Your task to perform on an android device: open chrome privacy settings Image 0: 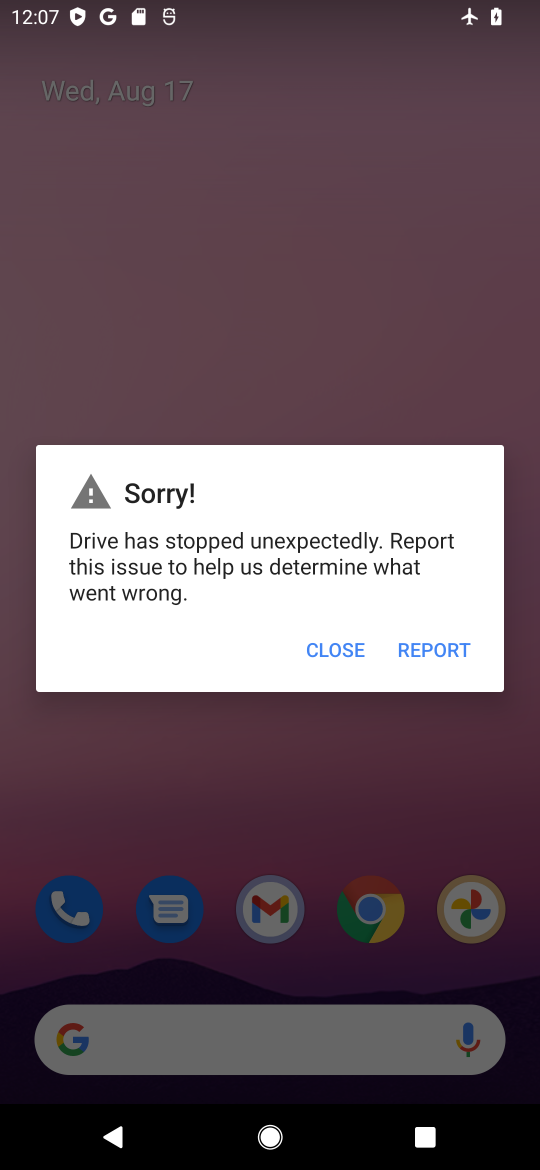
Step 0: press home button
Your task to perform on an android device: open chrome privacy settings Image 1: 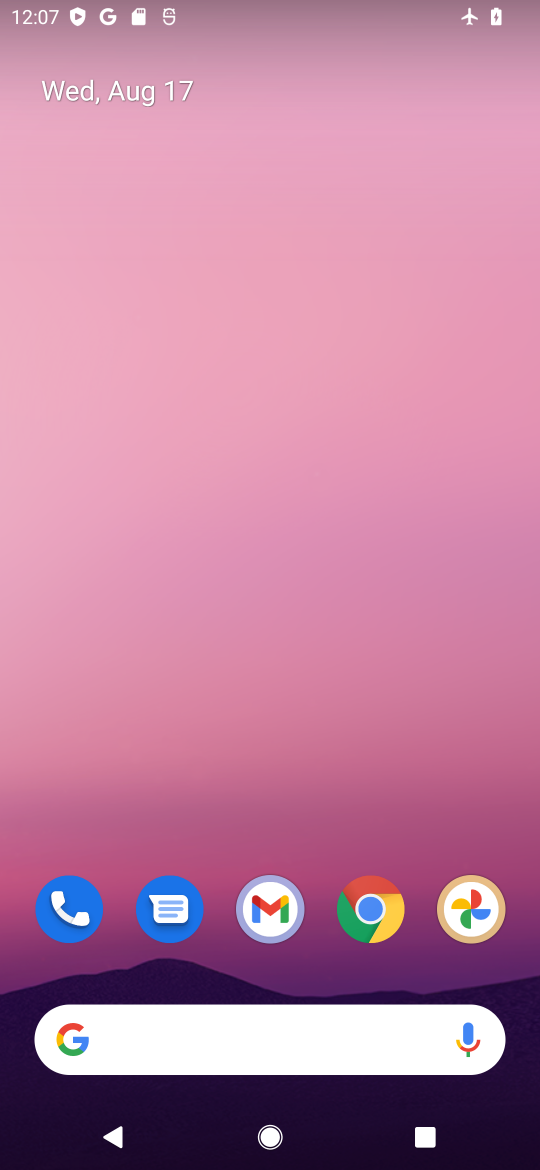
Step 1: click (368, 916)
Your task to perform on an android device: open chrome privacy settings Image 2: 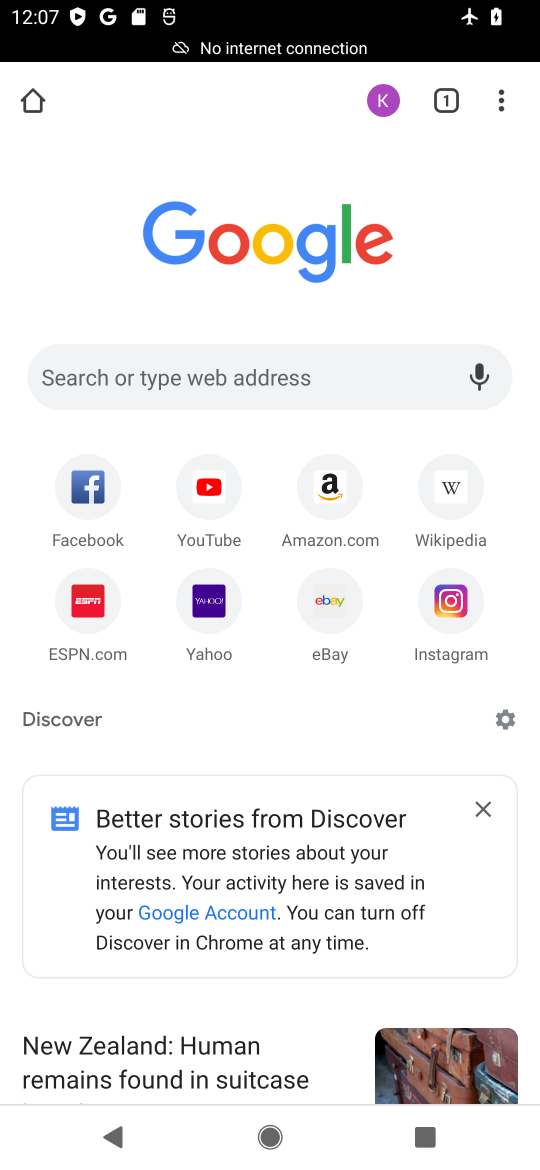
Step 2: click (497, 94)
Your task to perform on an android device: open chrome privacy settings Image 3: 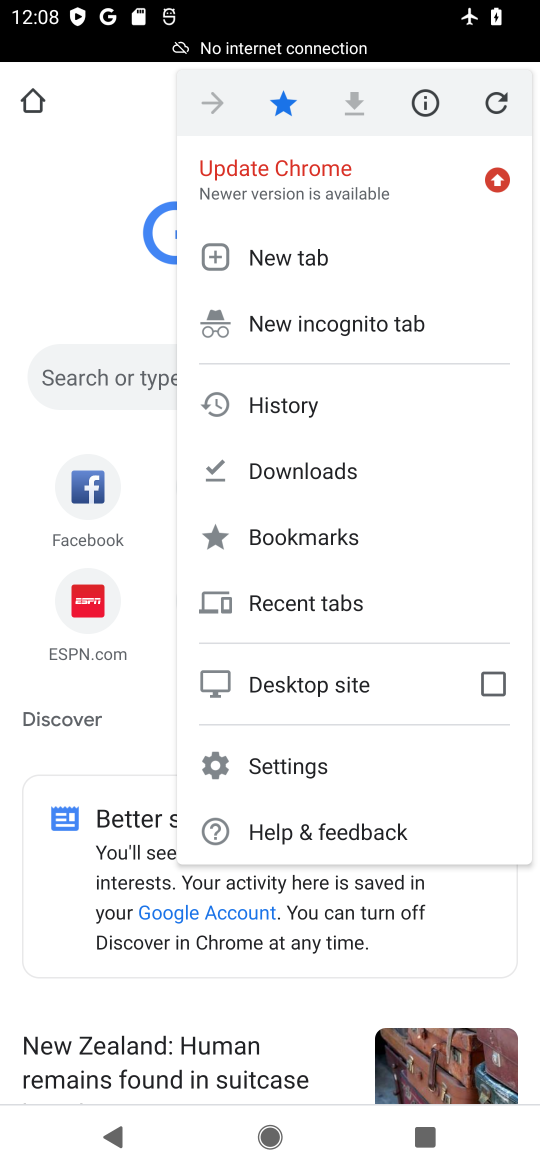
Step 3: click (294, 761)
Your task to perform on an android device: open chrome privacy settings Image 4: 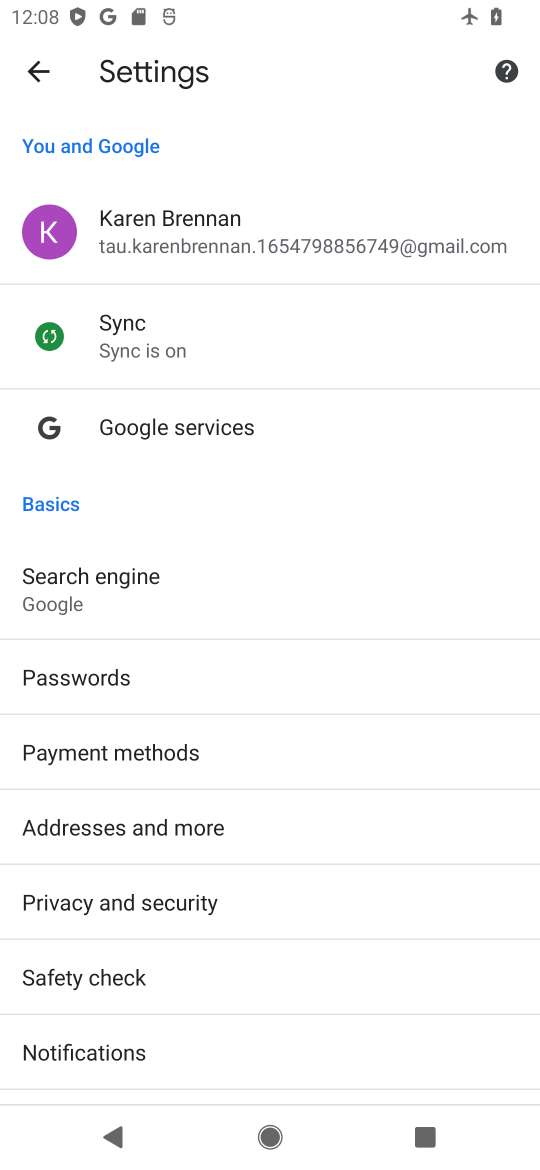
Step 4: click (116, 897)
Your task to perform on an android device: open chrome privacy settings Image 5: 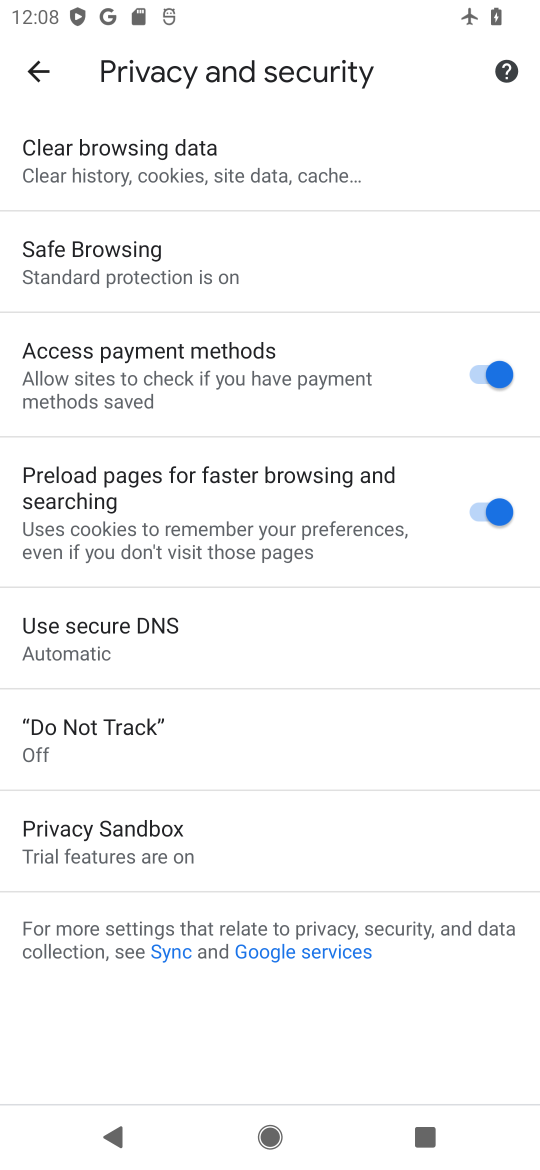
Step 5: task complete